Your task to perform on an android device: Open wifi settings Image 0: 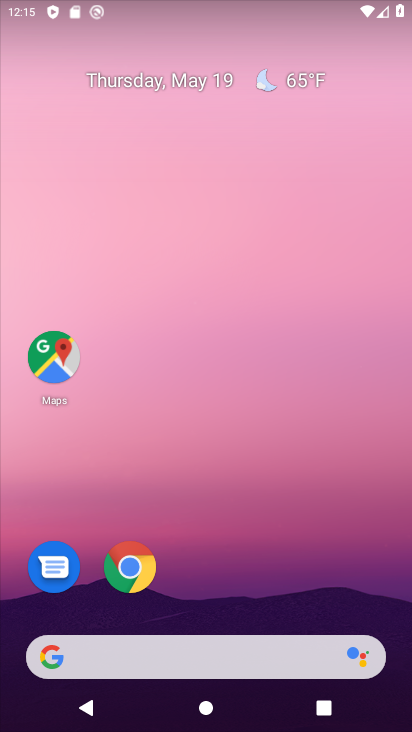
Step 0: drag from (281, 541) to (246, 82)
Your task to perform on an android device: Open wifi settings Image 1: 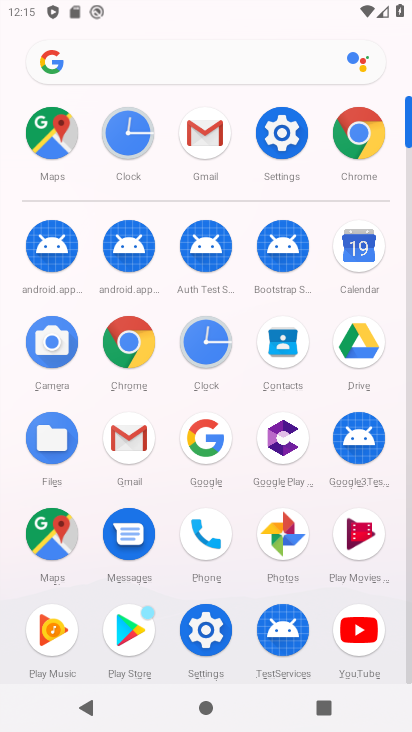
Step 1: click (287, 124)
Your task to perform on an android device: Open wifi settings Image 2: 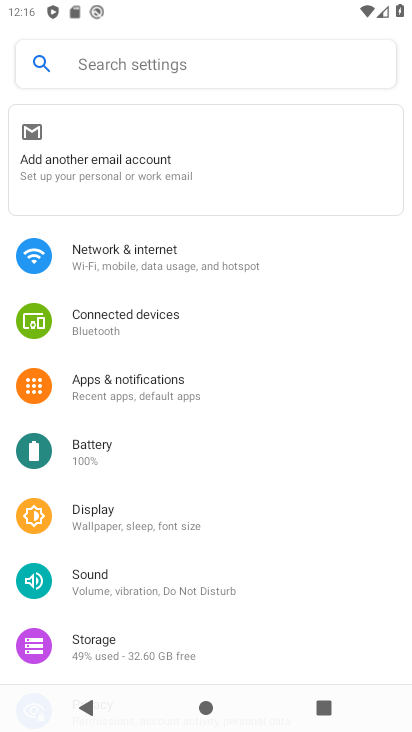
Step 2: click (145, 256)
Your task to perform on an android device: Open wifi settings Image 3: 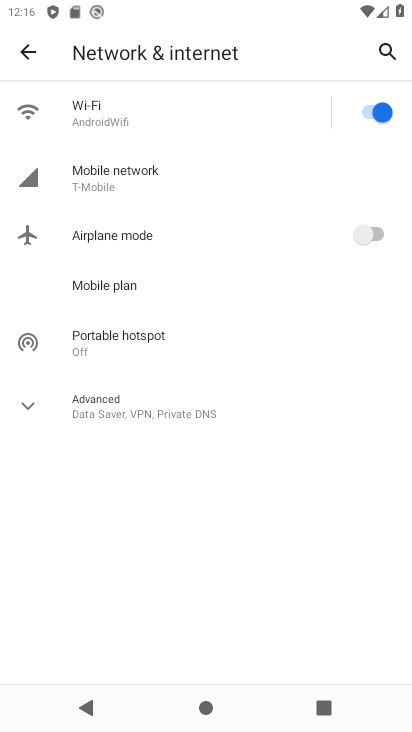
Step 3: click (130, 108)
Your task to perform on an android device: Open wifi settings Image 4: 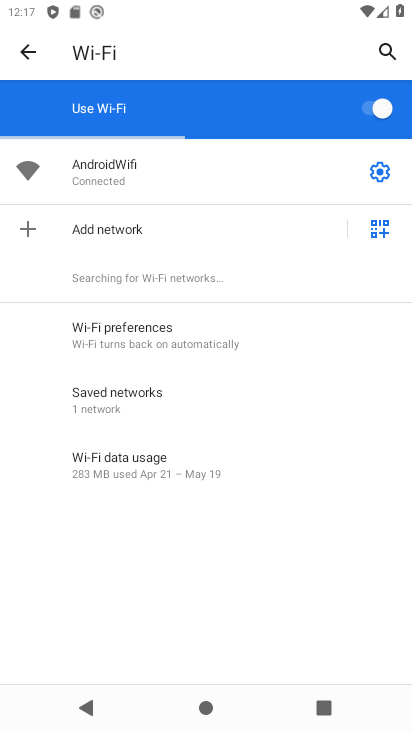
Step 4: task complete